Your task to perform on an android device: add a contact Image 0: 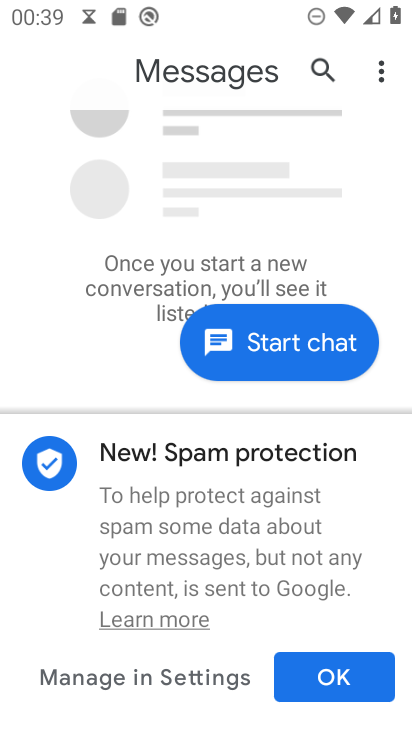
Step 0: press home button
Your task to perform on an android device: add a contact Image 1: 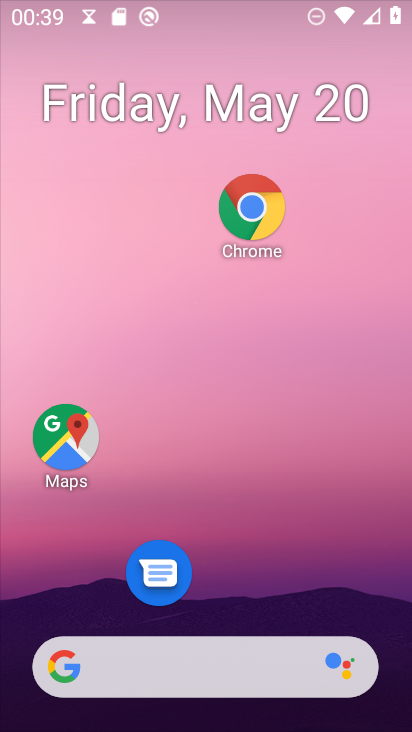
Step 1: drag from (271, 598) to (268, 1)
Your task to perform on an android device: add a contact Image 2: 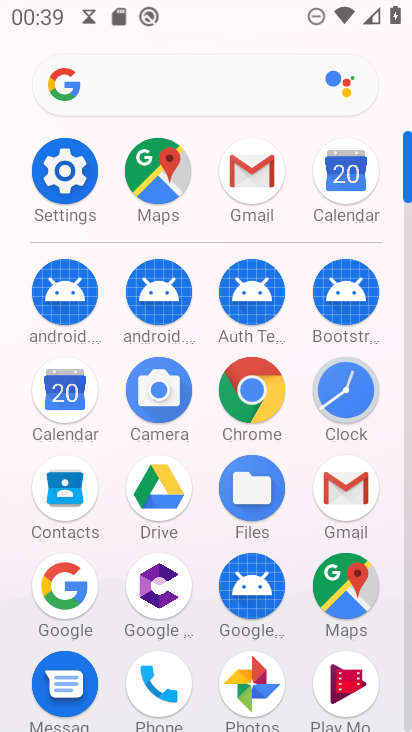
Step 2: click (46, 499)
Your task to perform on an android device: add a contact Image 3: 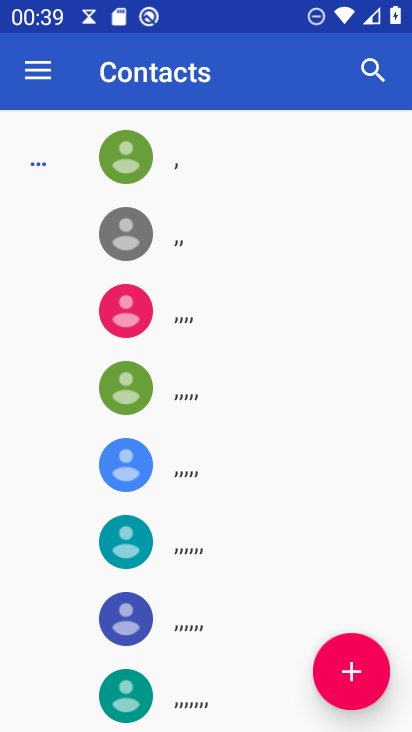
Step 3: click (348, 669)
Your task to perform on an android device: add a contact Image 4: 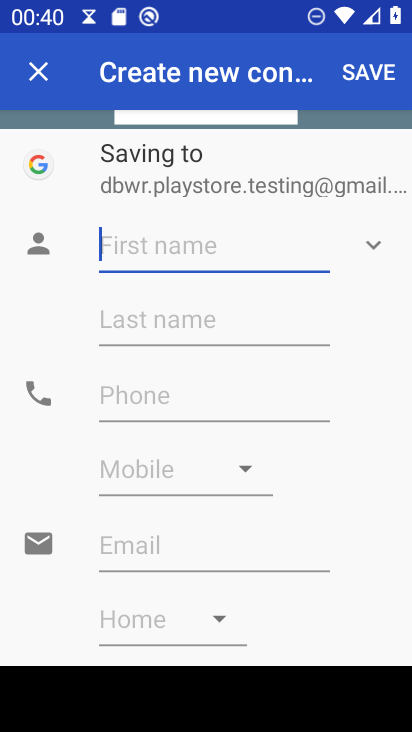
Step 4: type "mkjnmkjnmkjn"
Your task to perform on an android device: add a contact Image 5: 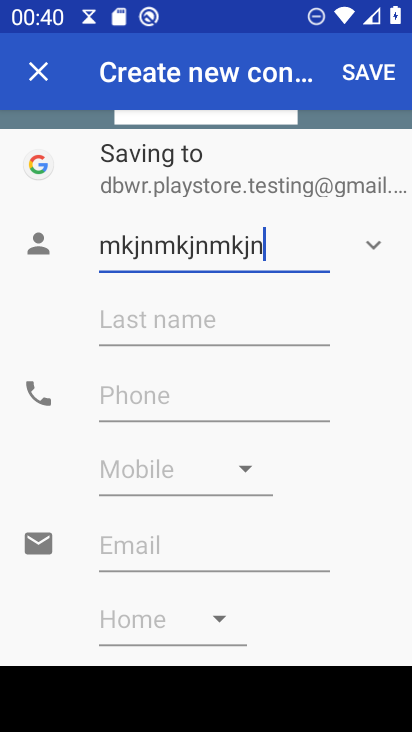
Step 5: click (89, 376)
Your task to perform on an android device: add a contact Image 6: 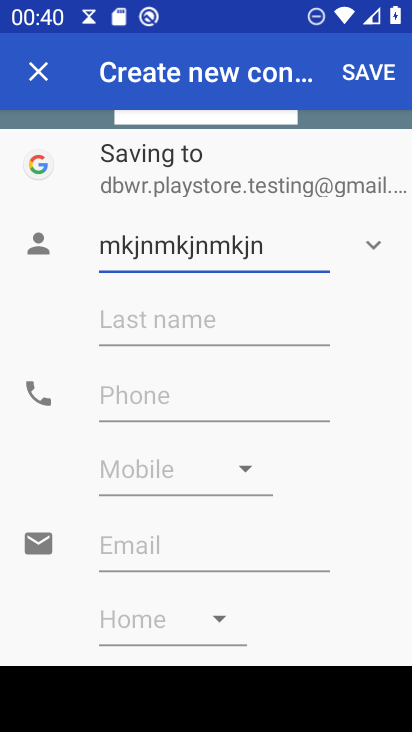
Step 6: click (229, 390)
Your task to perform on an android device: add a contact Image 7: 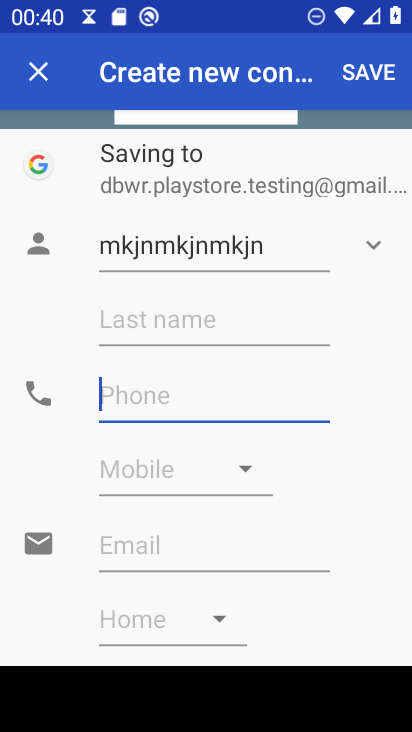
Step 7: type "91234567889"
Your task to perform on an android device: add a contact Image 8: 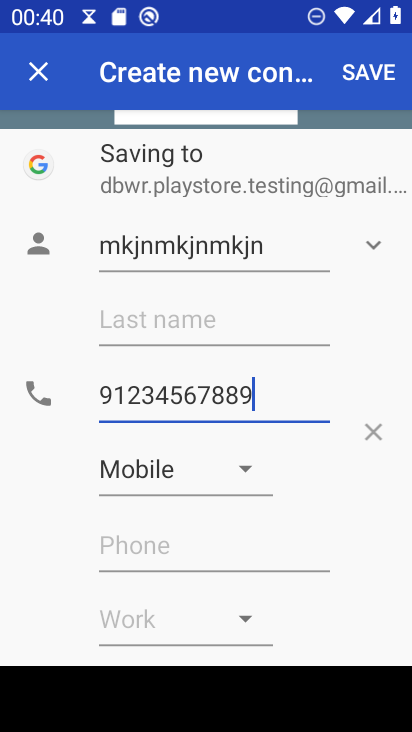
Step 8: click (360, 75)
Your task to perform on an android device: add a contact Image 9: 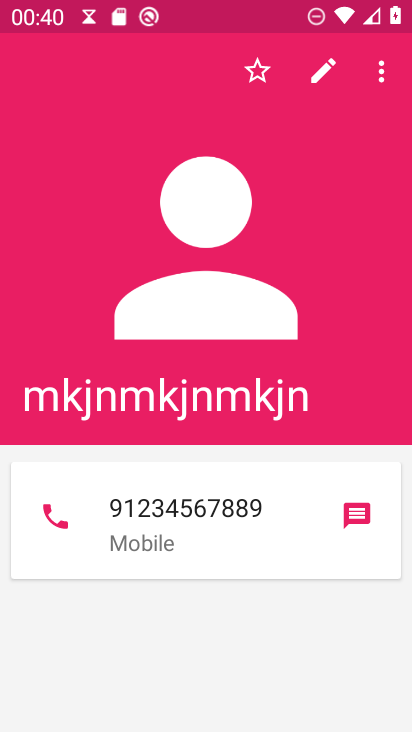
Step 9: task complete